Your task to perform on an android device: turn pop-ups on in chrome Image 0: 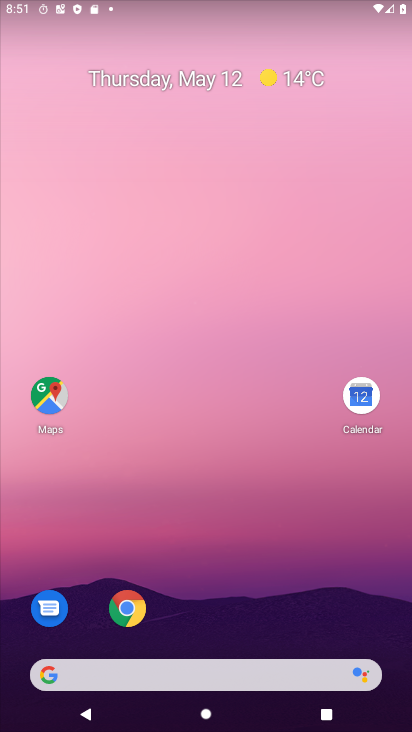
Step 0: click (139, 620)
Your task to perform on an android device: turn pop-ups on in chrome Image 1: 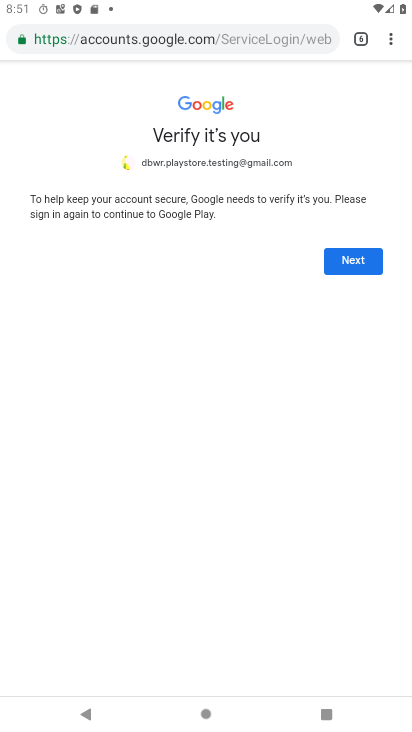
Step 1: click (385, 27)
Your task to perform on an android device: turn pop-ups on in chrome Image 2: 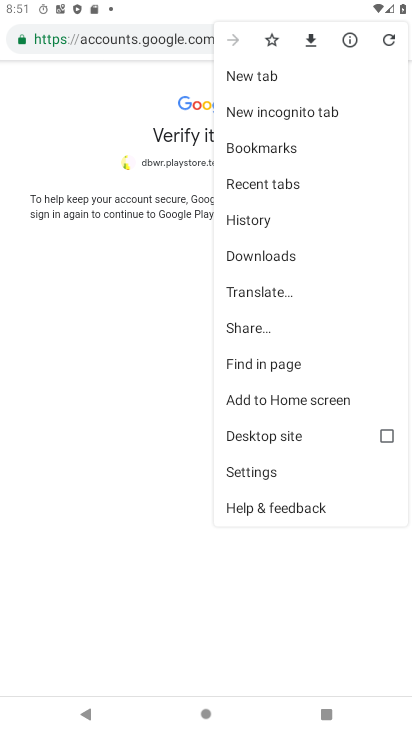
Step 2: click (253, 470)
Your task to perform on an android device: turn pop-ups on in chrome Image 3: 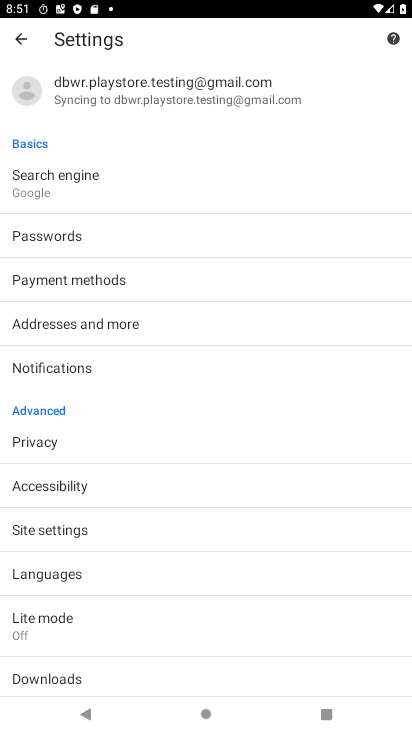
Step 3: click (45, 537)
Your task to perform on an android device: turn pop-ups on in chrome Image 4: 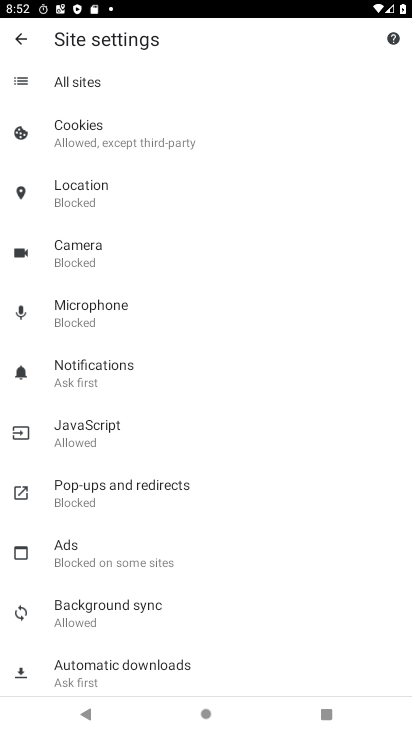
Step 4: click (80, 492)
Your task to perform on an android device: turn pop-ups on in chrome Image 5: 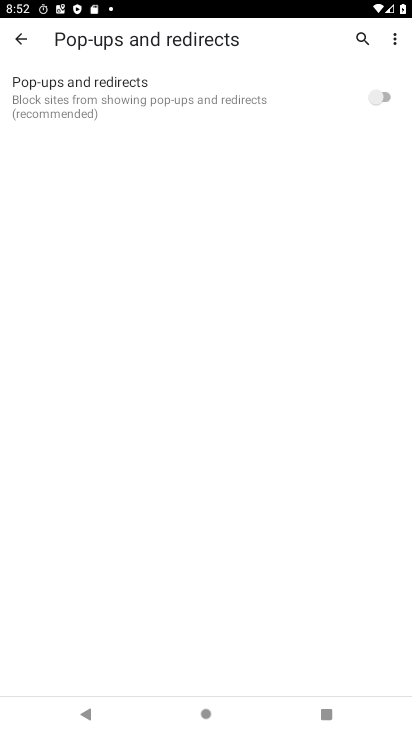
Step 5: click (377, 96)
Your task to perform on an android device: turn pop-ups on in chrome Image 6: 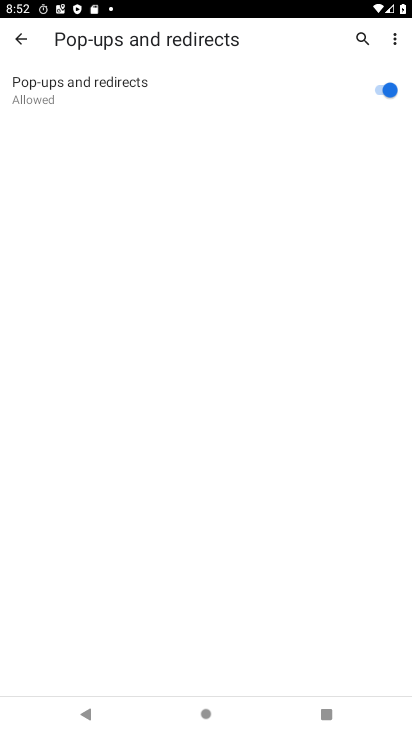
Step 6: task complete